Your task to perform on an android device: Go to wifi settings Image 0: 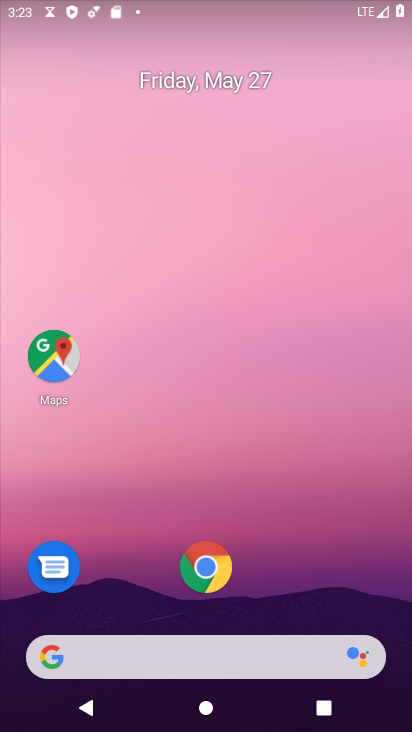
Step 0: drag from (97, 168) to (143, 397)
Your task to perform on an android device: Go to wifi settings Image 1: 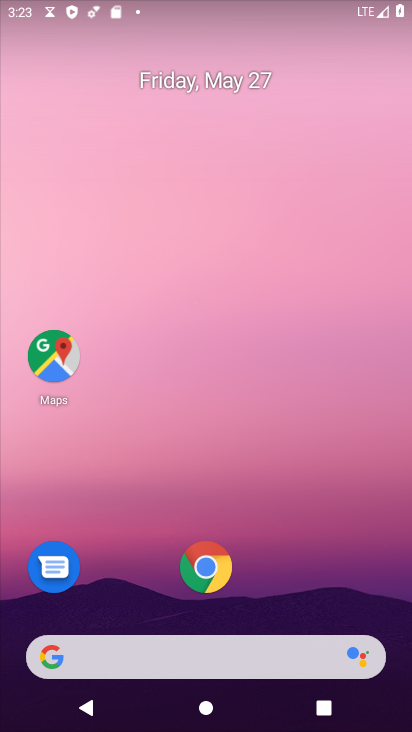
Step 1: drag from (57, 162) to (67, 302)
Your task to perform on an android device: Go to wifi settings Image 2: 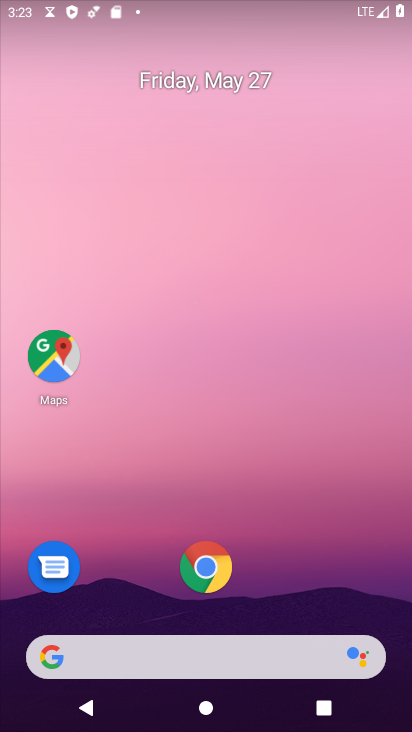
Step 2: drag from (33, 16) to (69, 269)
Your task to perform on an android device: Go to wifi settings Image 3: 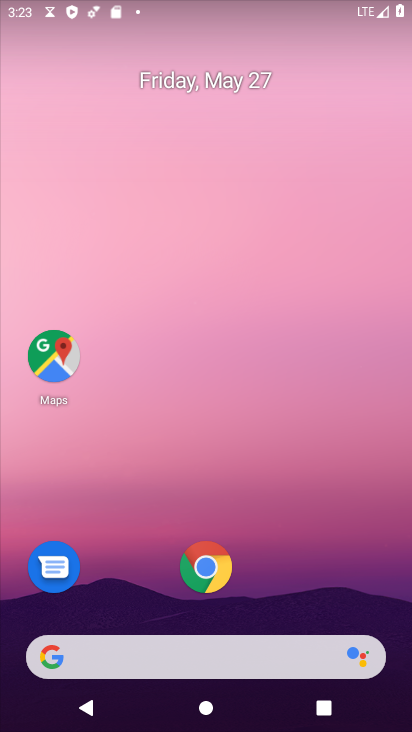
Step 3: drag from (46, 14) to (98, 380)
Your task to perform on an android device: Go to wifi settings Image 4: 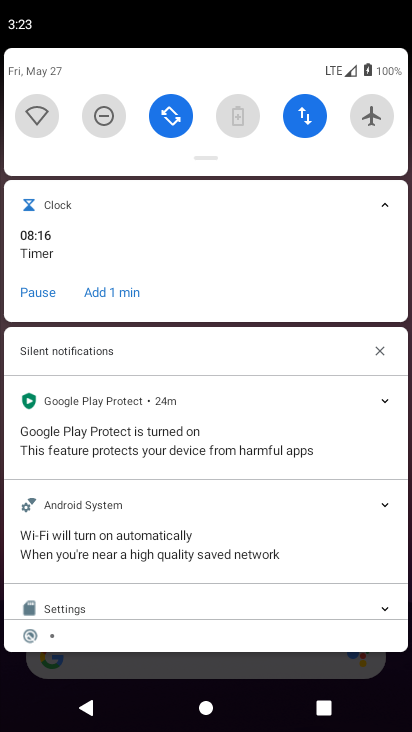
Step 4: click (35, 115)
Your task to perform on an android device: Go to wifi settings Image 5: 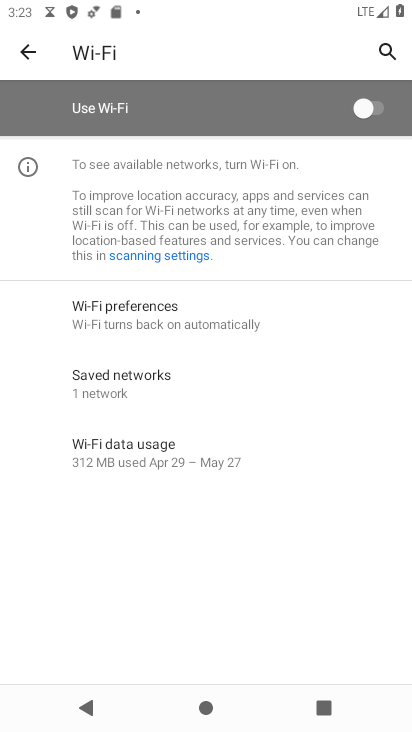
Step 5: task complete